Your task to perform on an android device: turn off improve location accuracy Image 0: 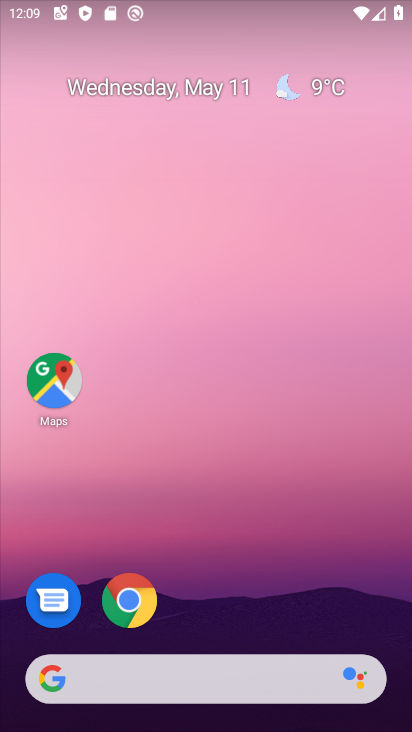
Step 0: drag from (255, 726) to (212, 19)
Your task to perform on an android device: turn off improve location accuracy Image 1: 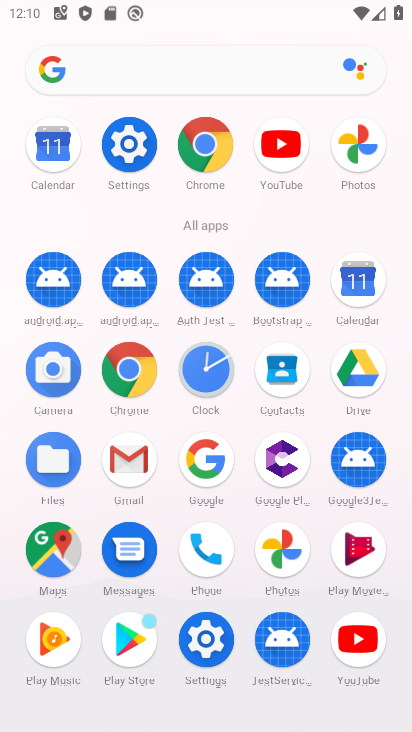
Step 1: click (131, 130)
Your task to perform on an android device: turn off improve location accuracy Image 2: 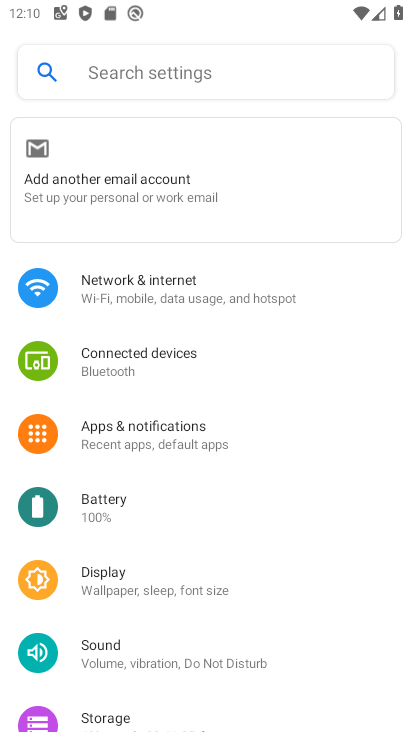
Step 2: drag from (332, 635) to (236, 165)
Your task to perform on an android device: turn off improve location accuracy Image 3: 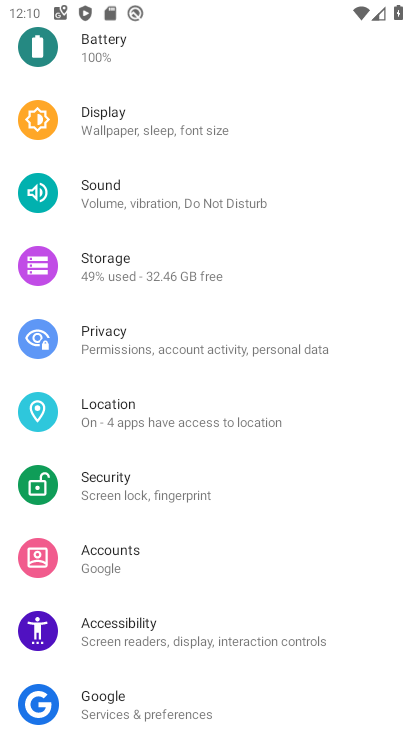
Step 3: click (172, 411)
Your task to perform on an android device: turn off improve location accuracy Image 4: 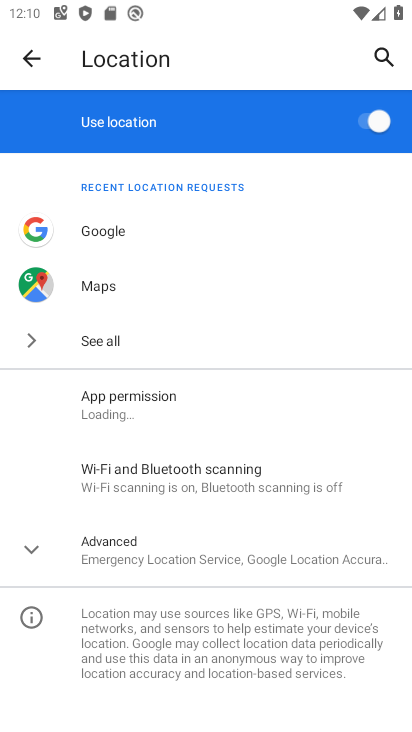
Step 4: click (285, 546)
Your task to perform on an android device: turn off improve location accuracy Image 5: 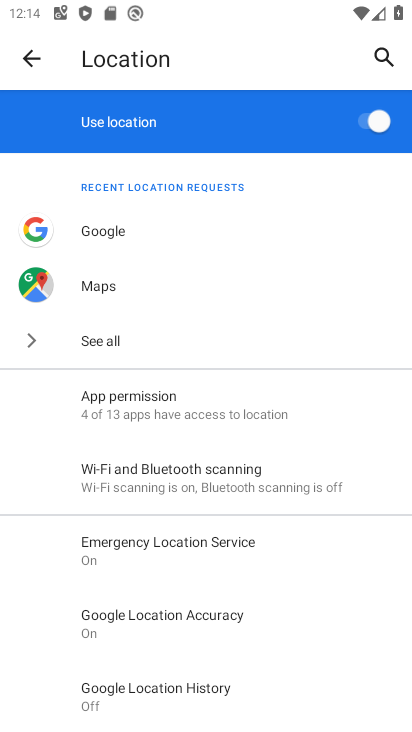
Step 5: click (193, 604)
Your task to perform on an android device: turn off improve location accuracy Image 6: 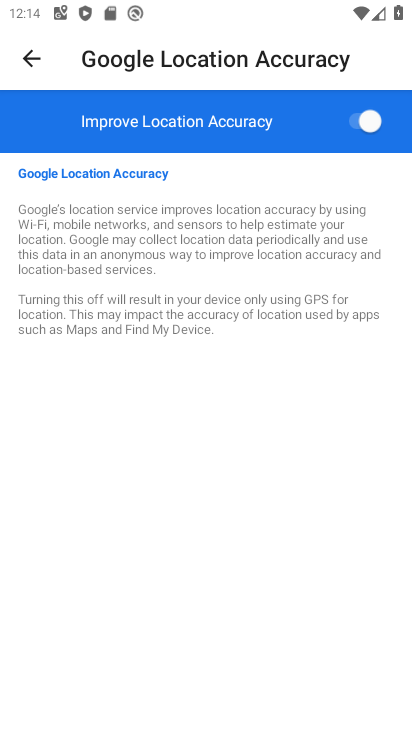
Step 6: click (346, 118)
Your task to perform on an android device: turn off improve location accuracy Image 7: 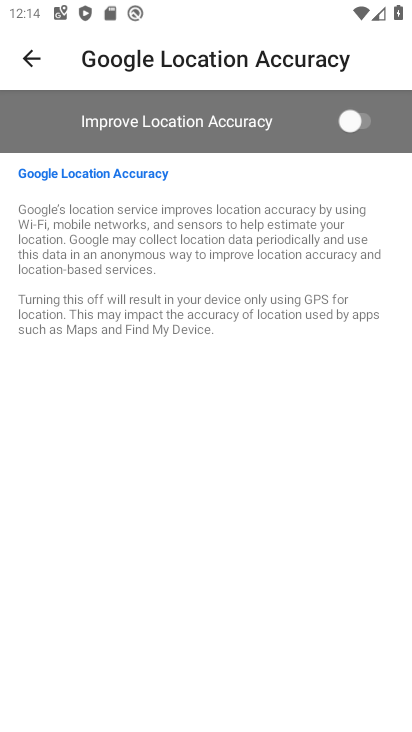
Step 7: task complete